Your task to perform on an android device: change the clock display to analog Image 0: 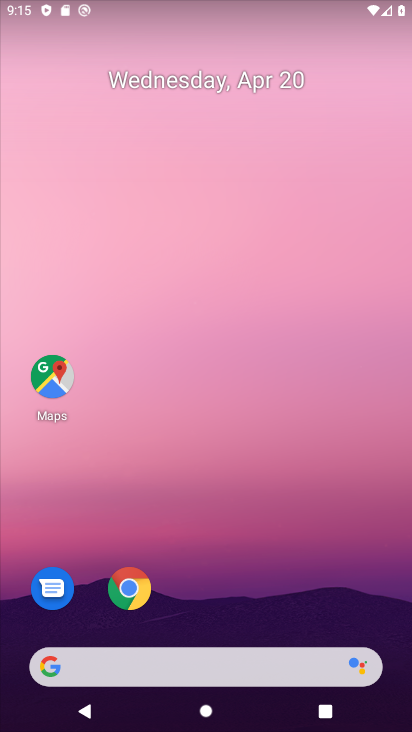
Step 0: drag from (238, 542) to (179, 51)
Your task to perform on an android device: change the clock display to analog Image 1: 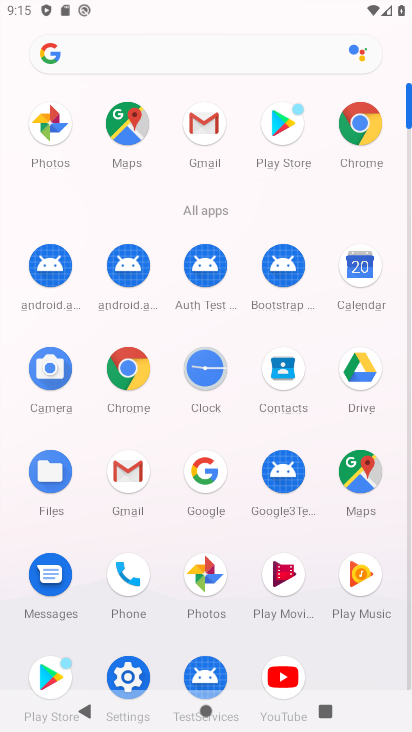
Step 1: click (210, 359)
Your task to perform on an android device: change the clock display to analog Image 2: 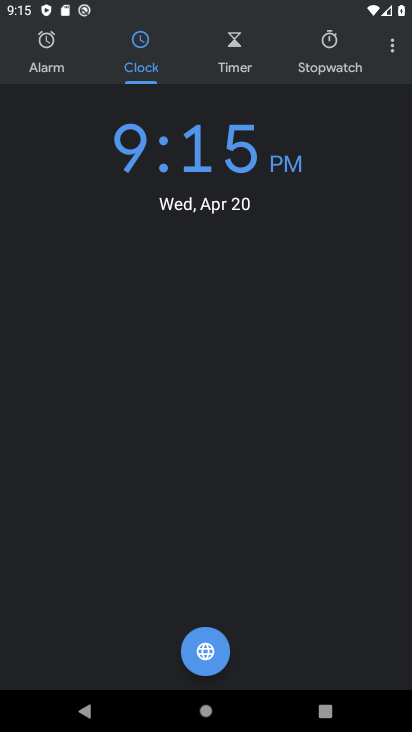
Step 2: click (389, 50)
Your task to perform on an android device: change the clock display to analog Image 3: 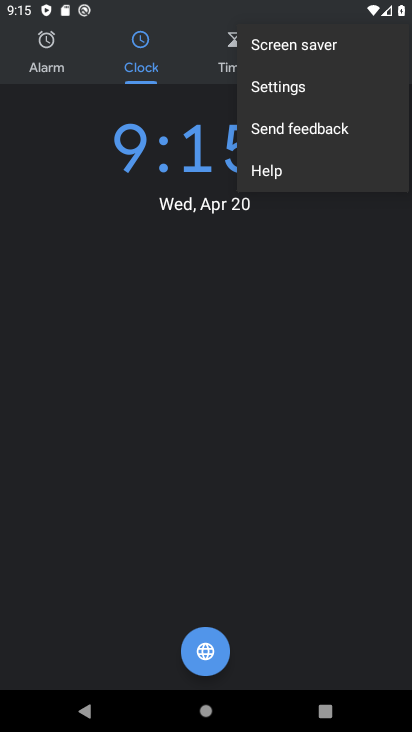
Step 3: click (298, 93)
Your task to perform on an android device: change the clock display to analog Image 4: 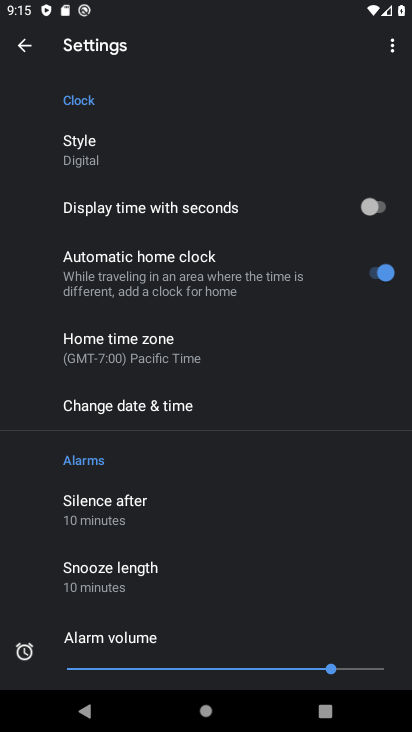
Step 4: click (77, 150)
Your task to perform on an android device: change the clock display to analog Image 5: 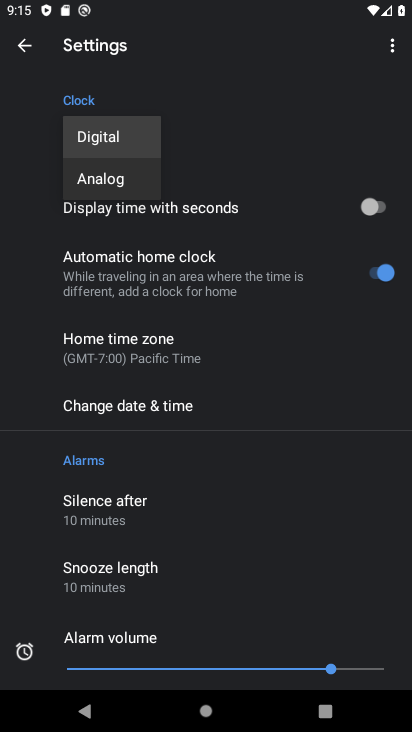
Step 5: click (107, 182)
Your task to perform on an android device: change the clock display to analog Image 6: 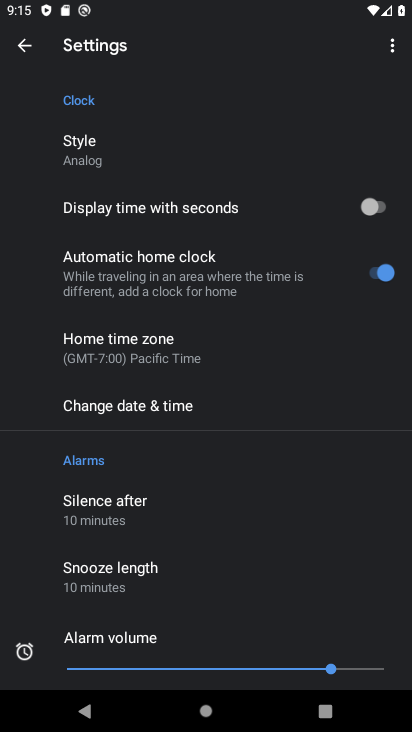
Step 6: task complete